Your task to perform on an android device: open wifi settings Image 0: 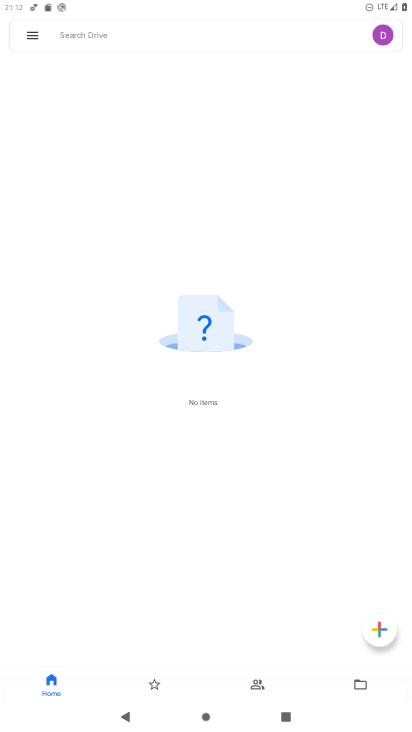
Step 0: press home button
Your task to perform on an android device: open wifi settings Image 1: 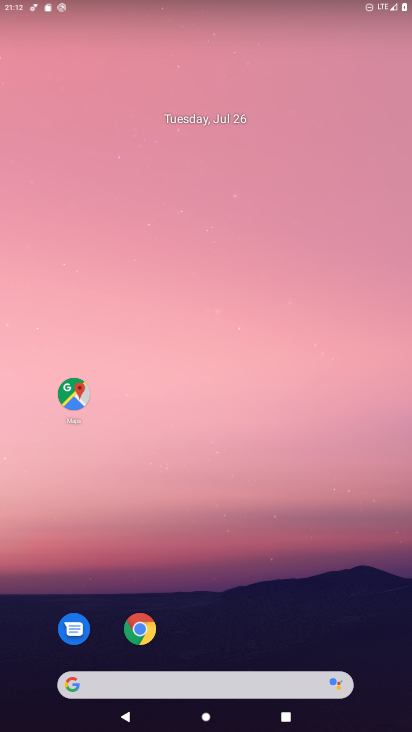
Step 1: drag from (301, 649) to (301, 244)
Your task to perform on an android device: open wifi settings Image 2: 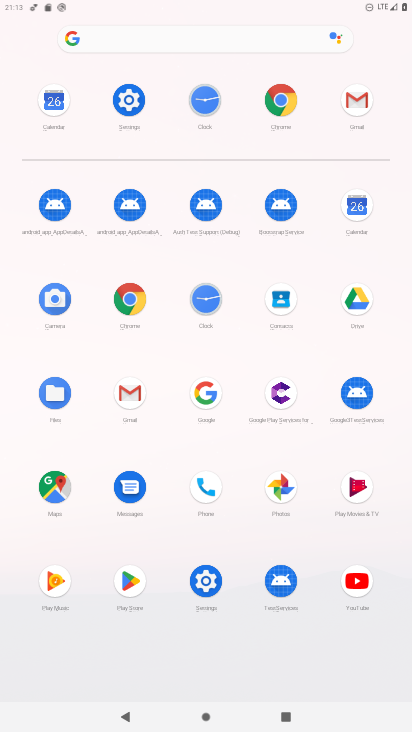
Step 2: drag from (359, 3) to (344, 262)
Your task to perform on an android device: open wifi settings Image 3: 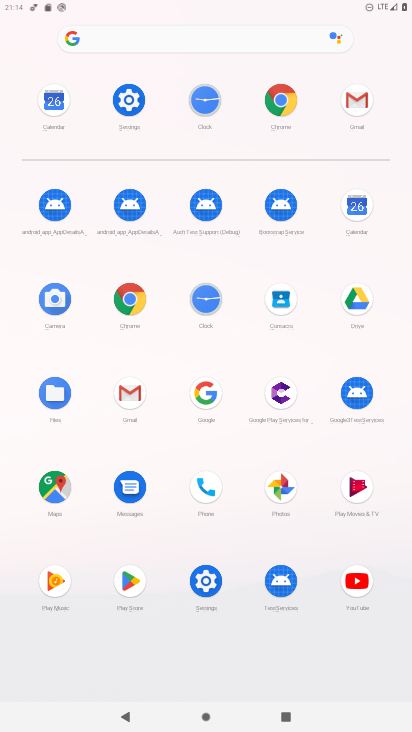
Step 3: drag from (386, 4) to (383, 214)
Your task to perform on an android device: open wifi settings Image 4: 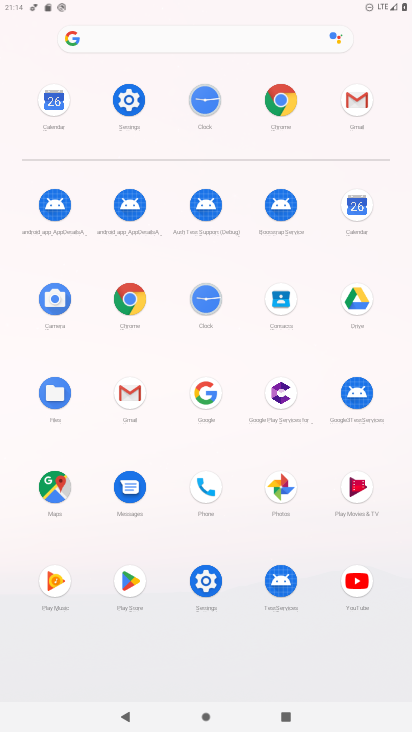
Step 4: drag from (381, 11) to (365, 237)
Your task to perform on an android device: open wifi settings Image 5: 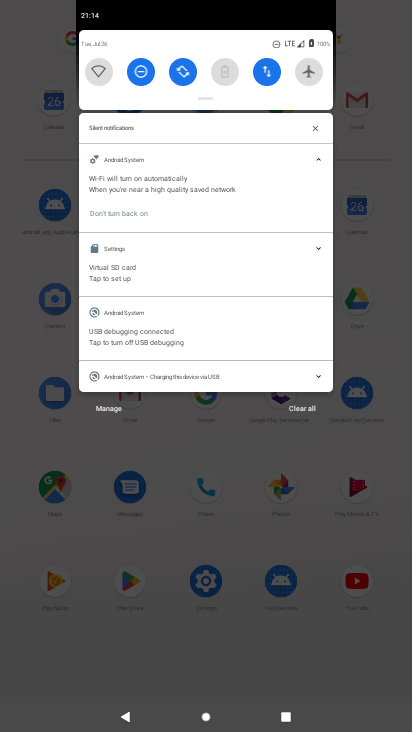
Step 5: click (96, 66)
Your task to perform on an android device: open wifi settings Image 6: 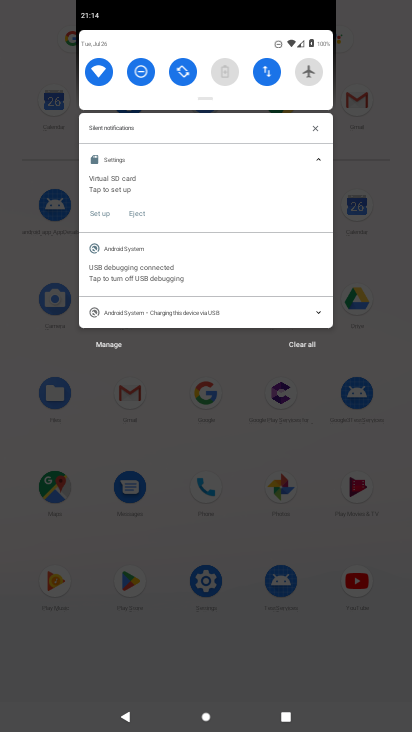
Step 6: task complete